Your task to perform on an android device: open app "Duolingo: language lessons" (install if not already installed) Image 0: 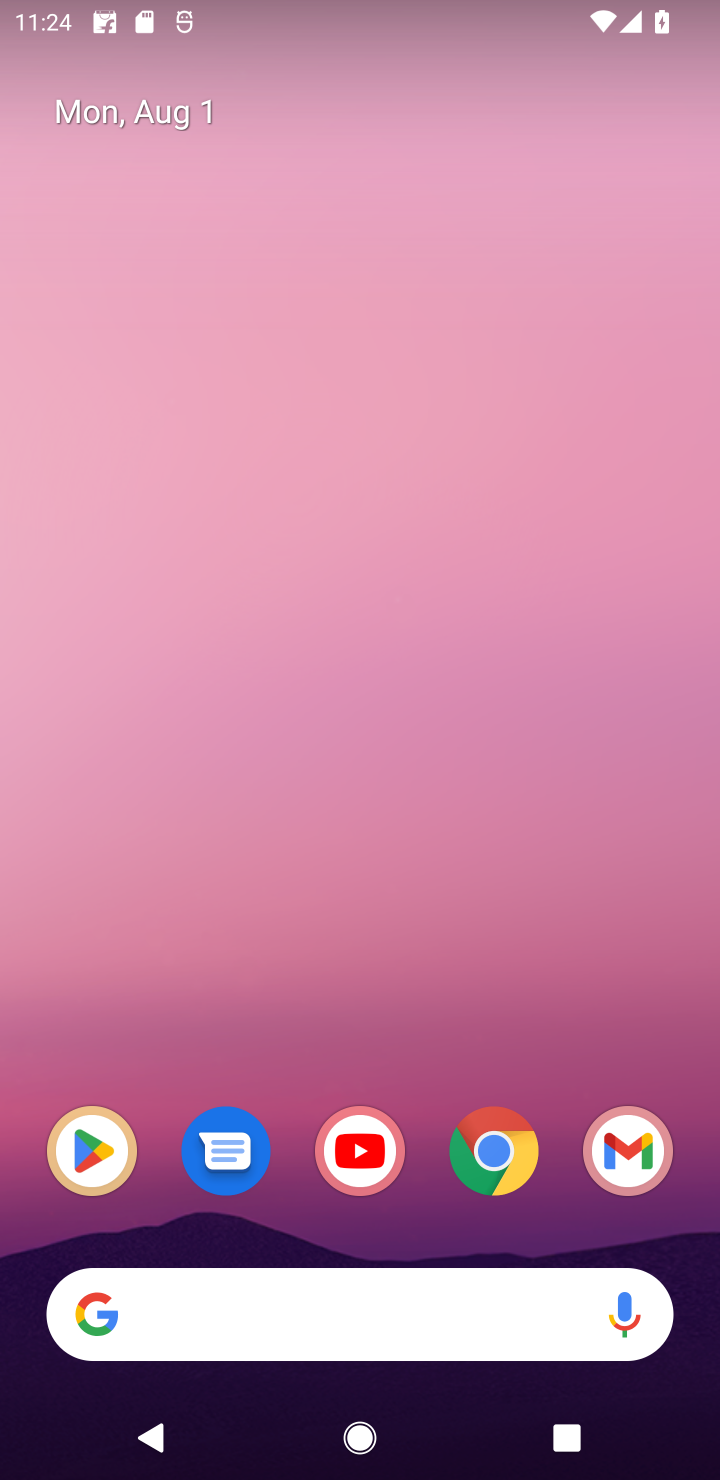
Step 0: click (73, 1122)
Your task to perform on an android device: open app "Duolingo: language lessons" (install if not already installed) Image 1: 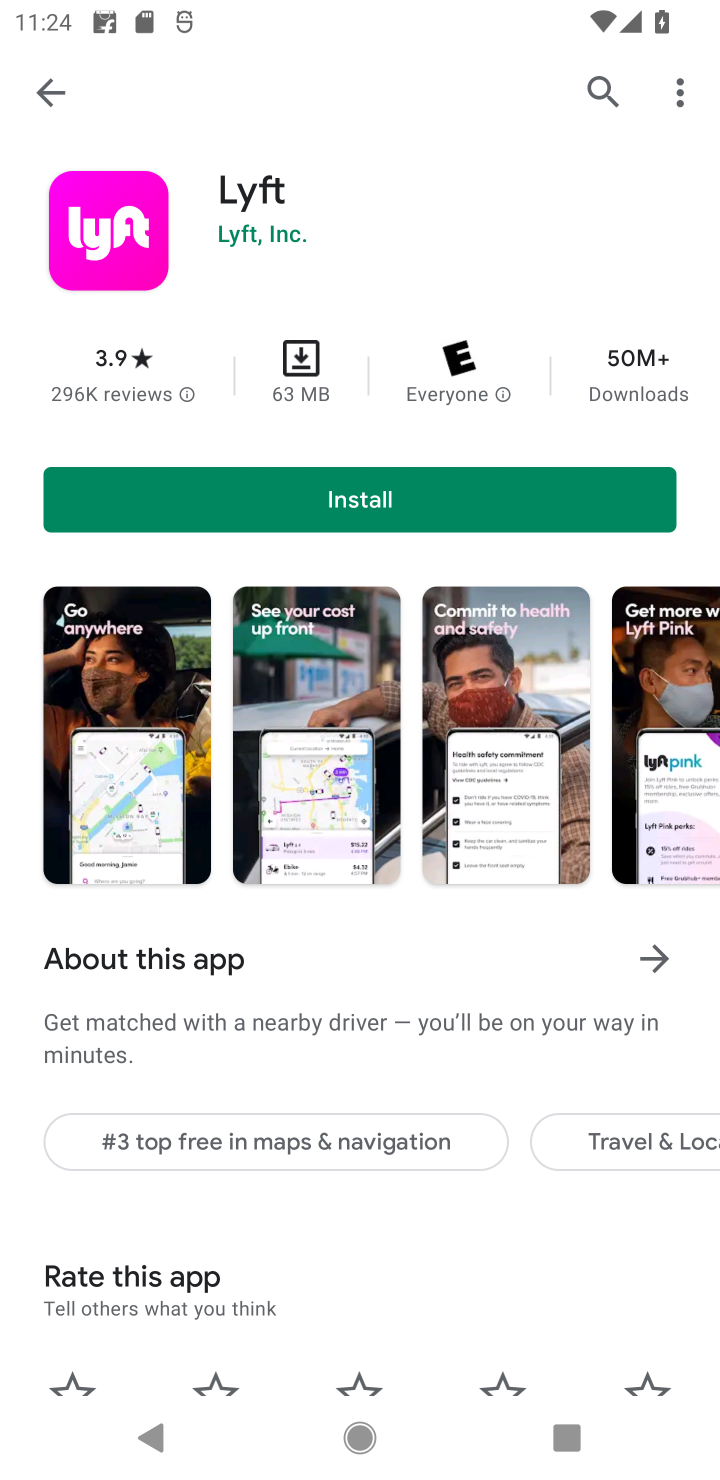
Step 1: click (115, 1134)
Your task to perform on an android device: open app "Duolingo: language lessons" (install if not already installed) Image 2: 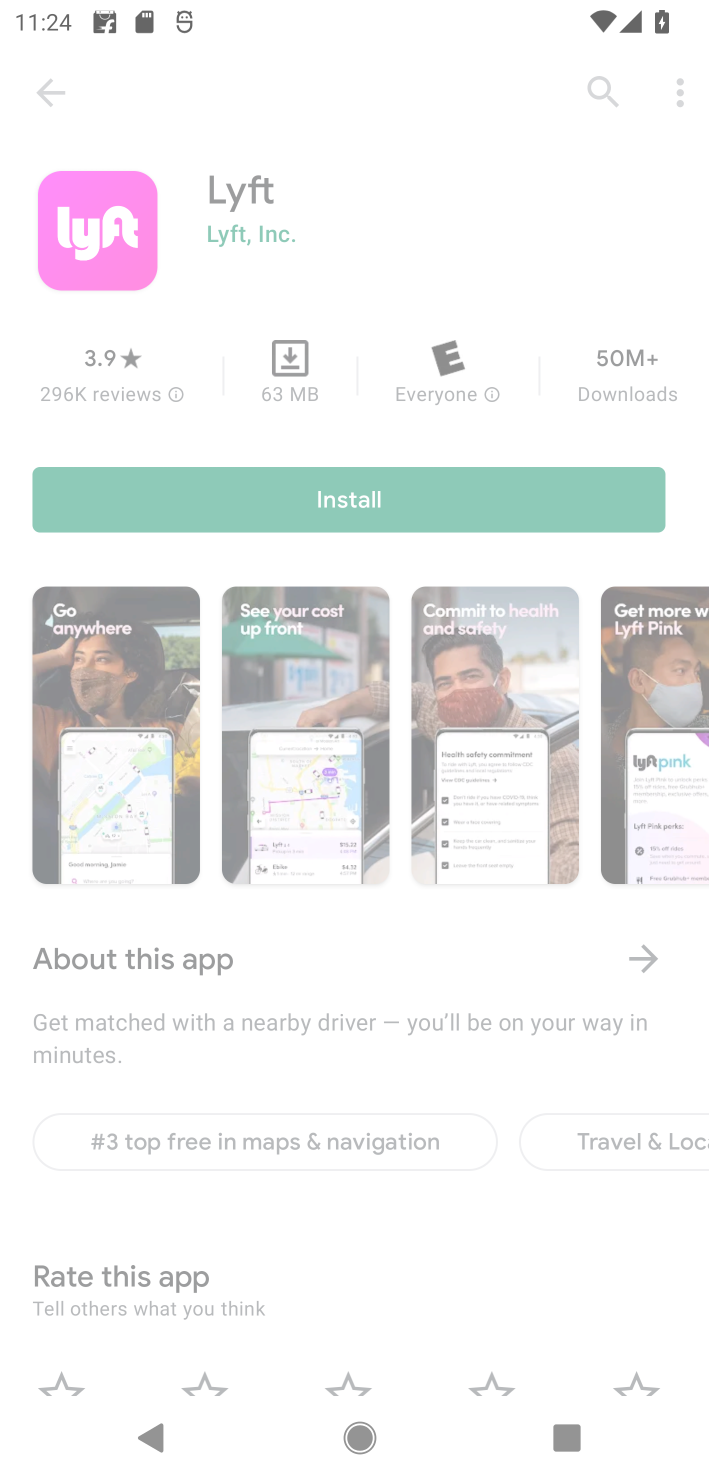
Step 2: drag from (115, 1134) to (187, 874)
Your task to perform on an android device: open app "Duolingo: language lessons" (install if not already installed) Image 3: 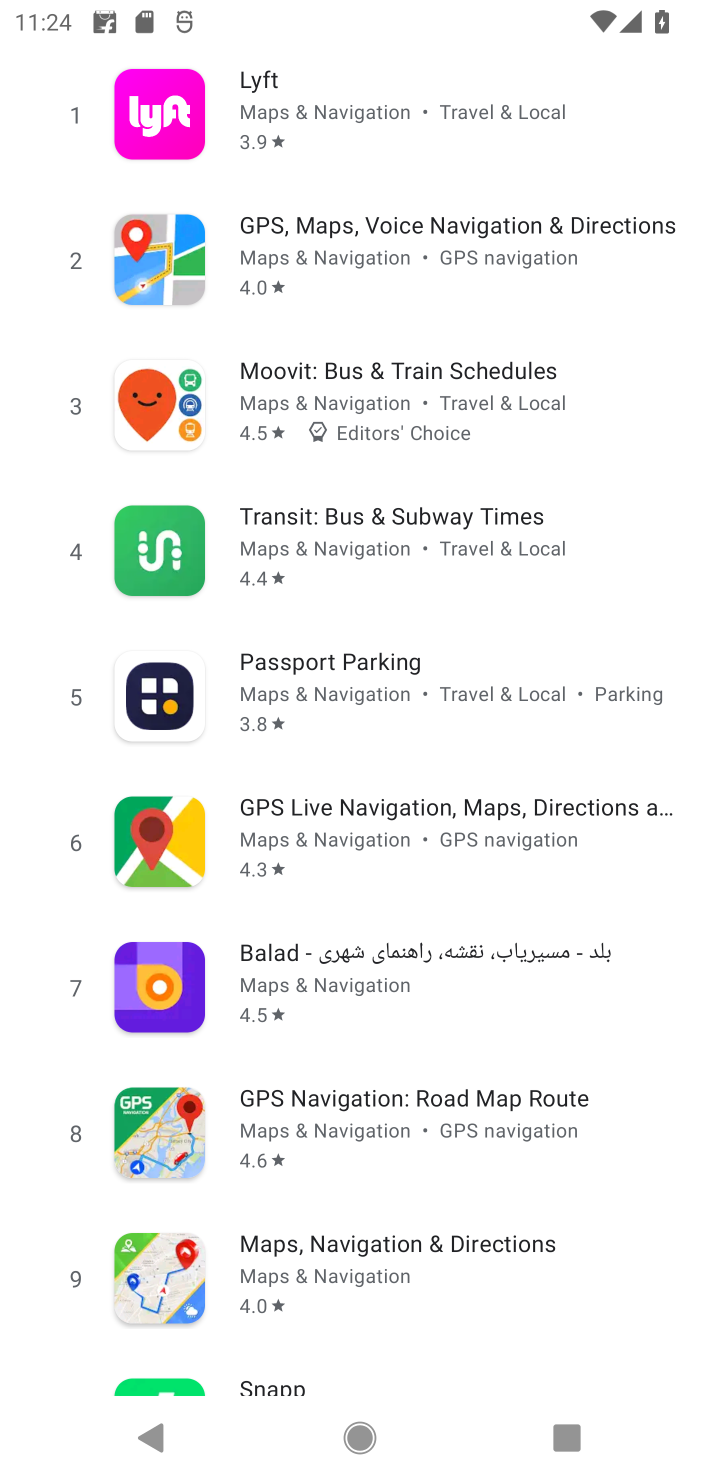
Step 3: press back button
Your task to perform on an android device: open app "Duolingo: language lessons" (install if not already installed) Image 4: 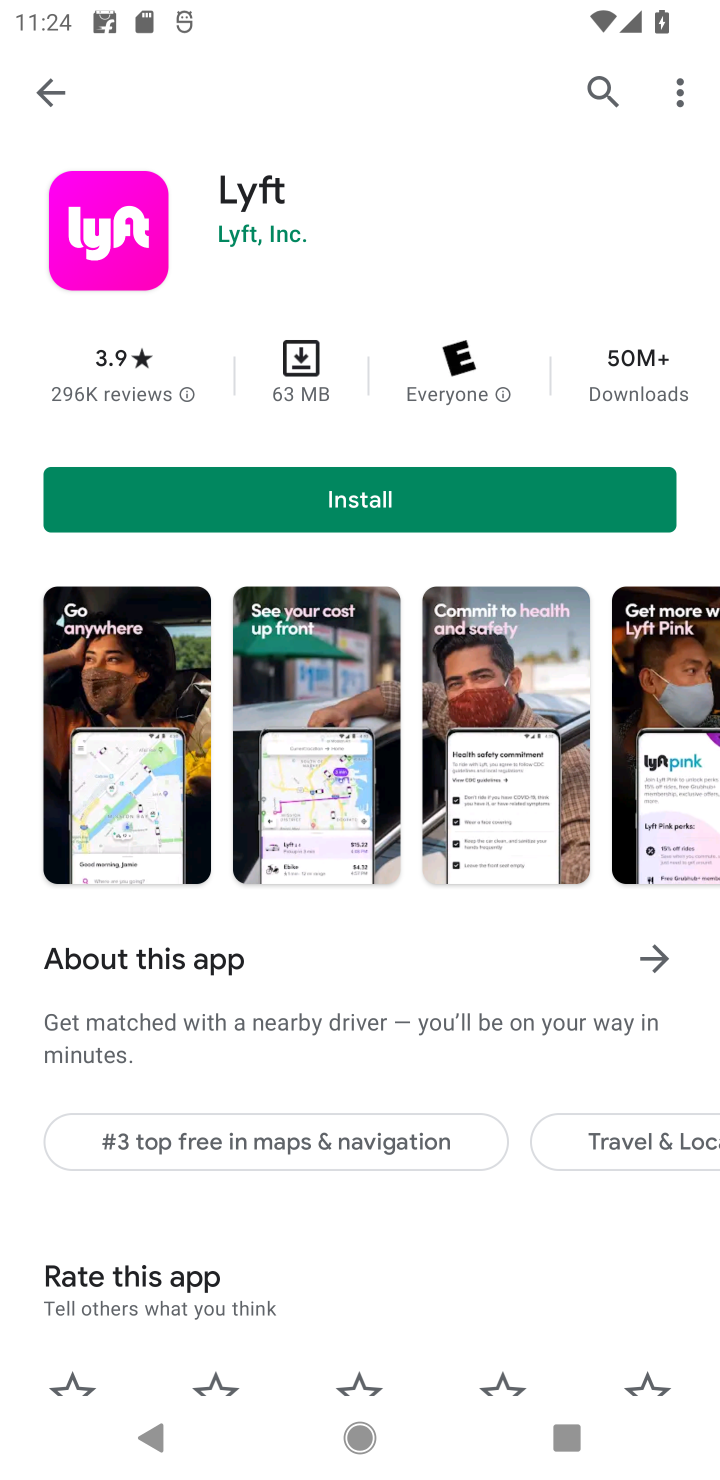
Step 4: click (594, 100)
Your task to perform on an android device: open app "Duolingo: language lessons" (install if not already installed) Image 5: 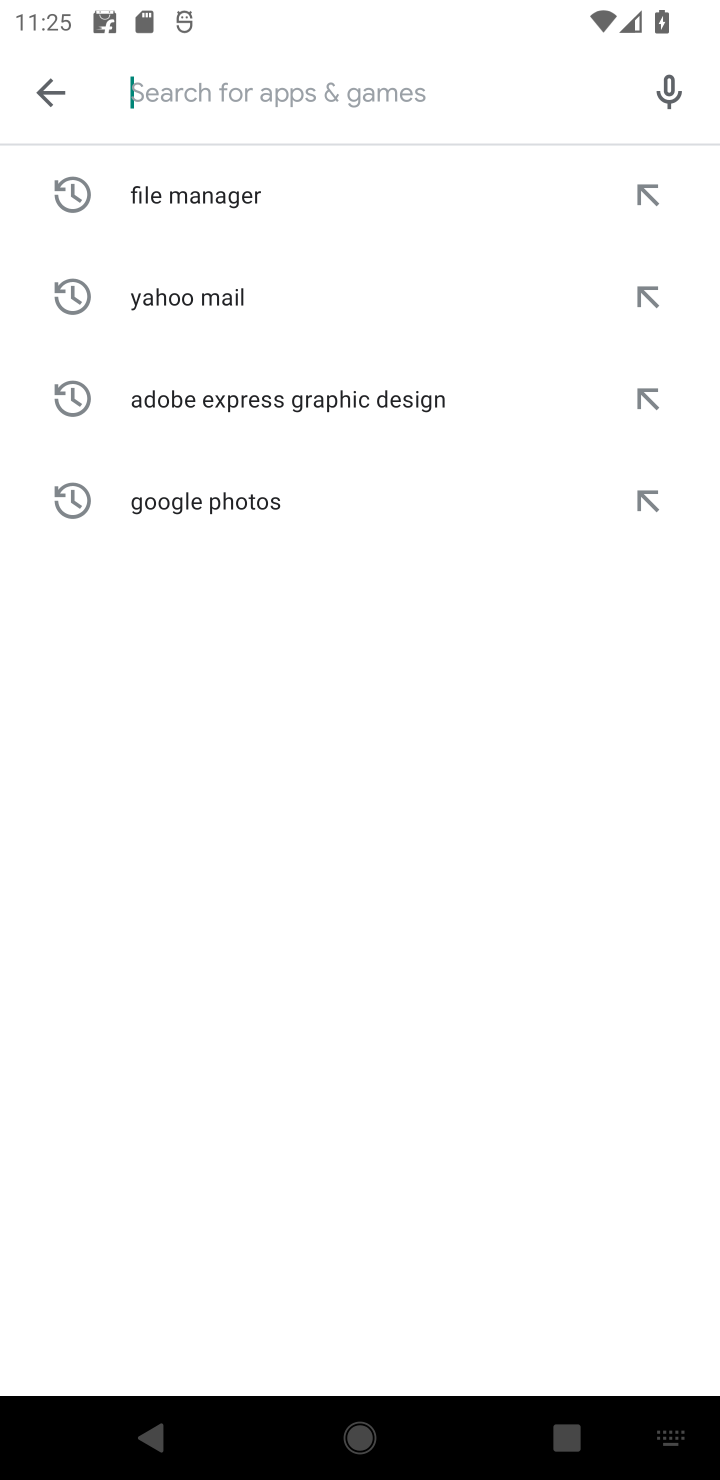
Step 5: type "Duolingo: language lessons"
Your task to perform on an android device: open app "Duolingo: language lessons" (install if not already installed) Image 6: 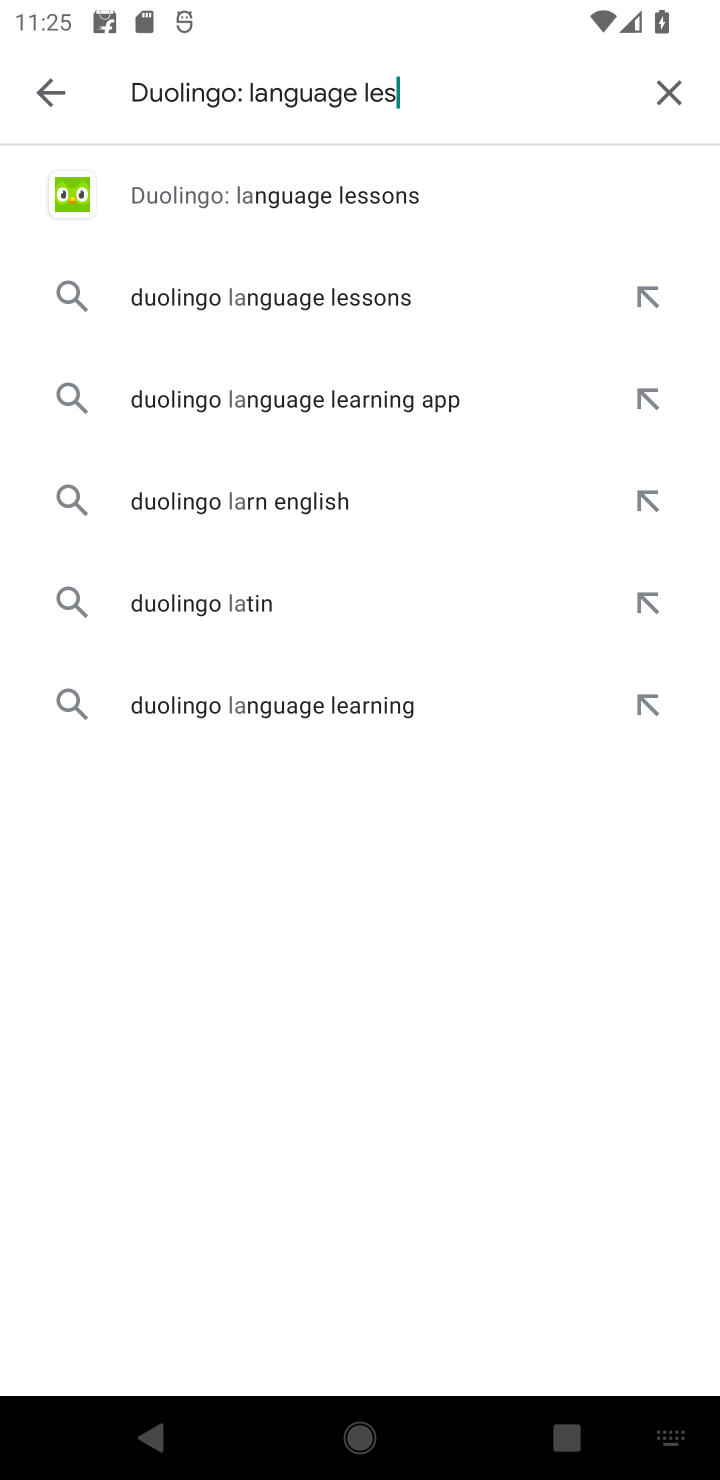
Step 6: type ""
Your task to perform on an android device: open app "Duolingo: language lessons" (install if not already installed) Image 7: 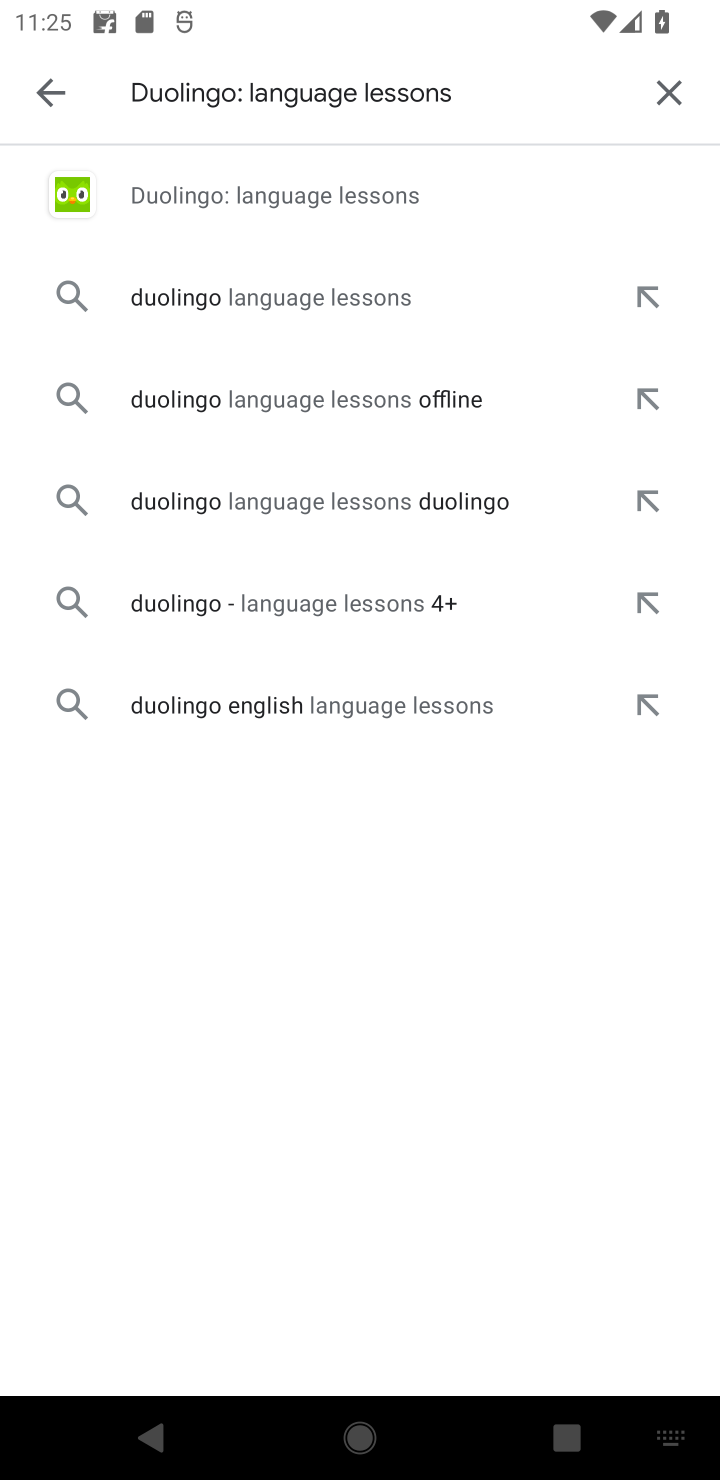
Step 7: click (175, 197)
Your task to perform on an android device: open app "Duolingo: language lessons" (install if not already installed) Image 8: 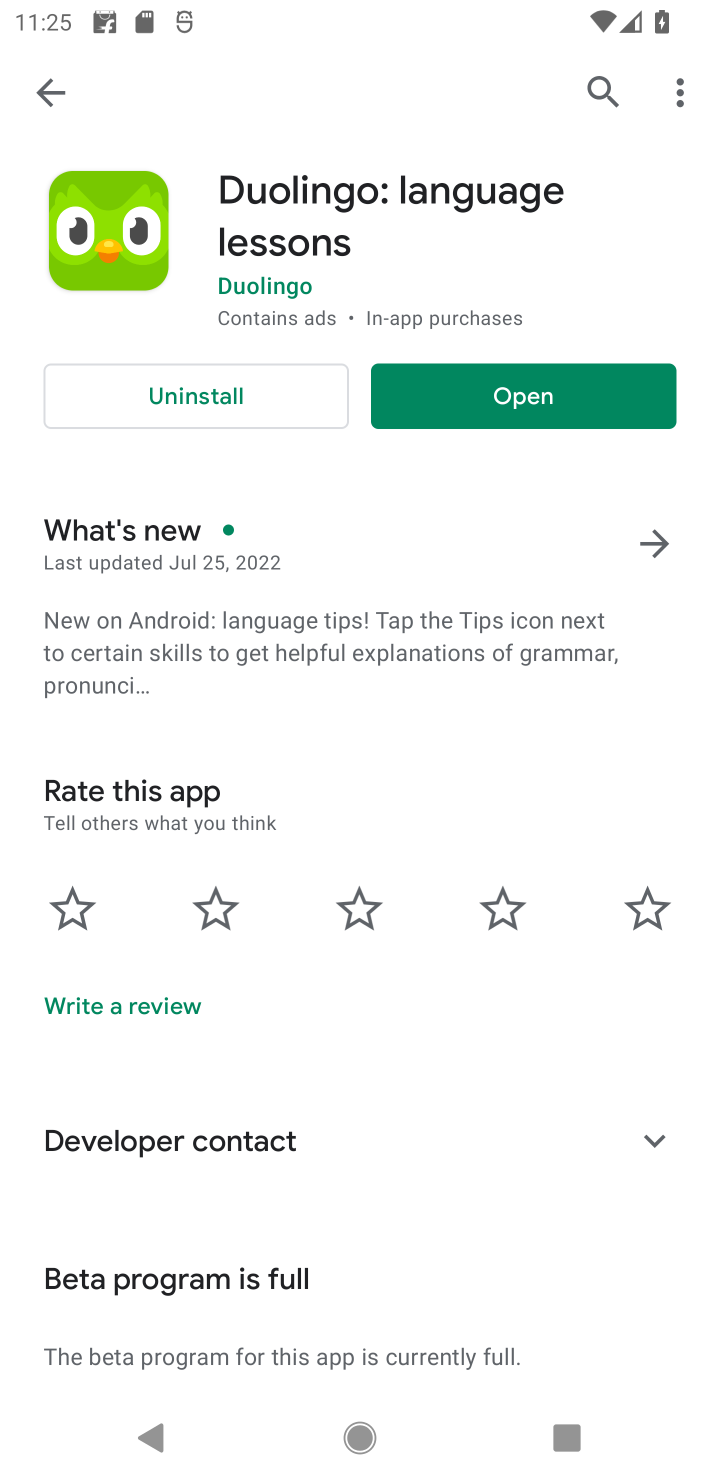
Step 8: click (594, 383)
Your task to perform on an android device: open app "Duolingo: language lessons" (install if not already installed) Image 9: 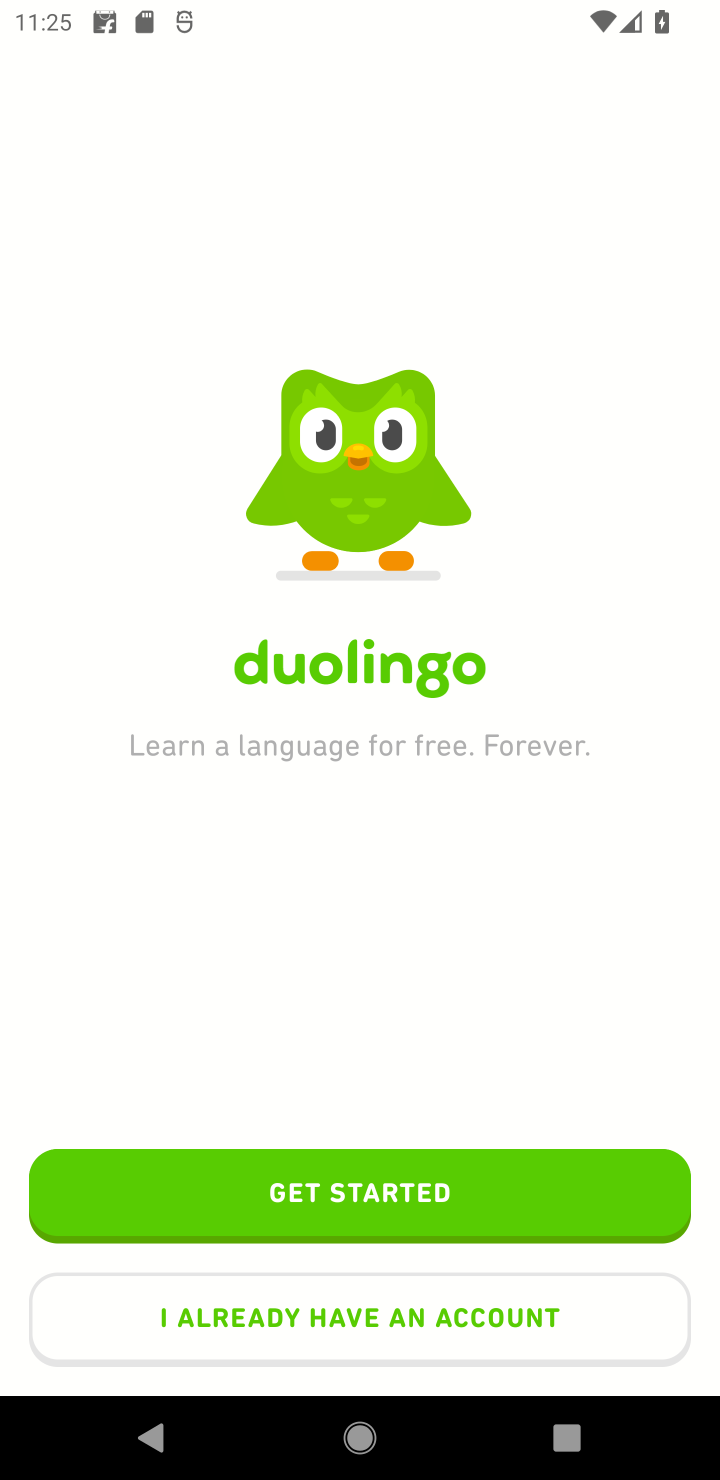
Step 9: task complete